Your task to perform on an android device: Show me the alarms in the clock app Image 0: 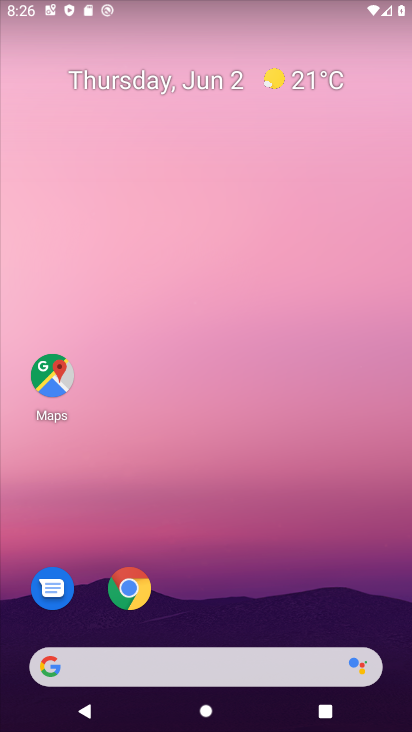
Step 0: drag from (241, 662) to (267, 335)
Your task to perform on an android device: Show me the alarms in the clock app Image 1: 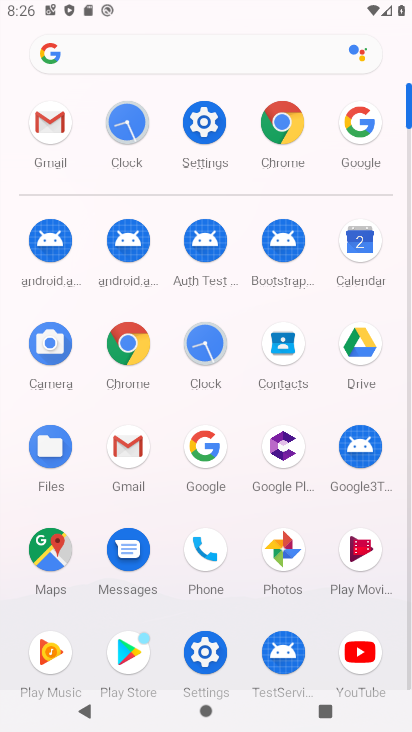
Step 1: click (200, 346)
Your task to perform on an android device: Show me the alarms in the clock app Image 2: 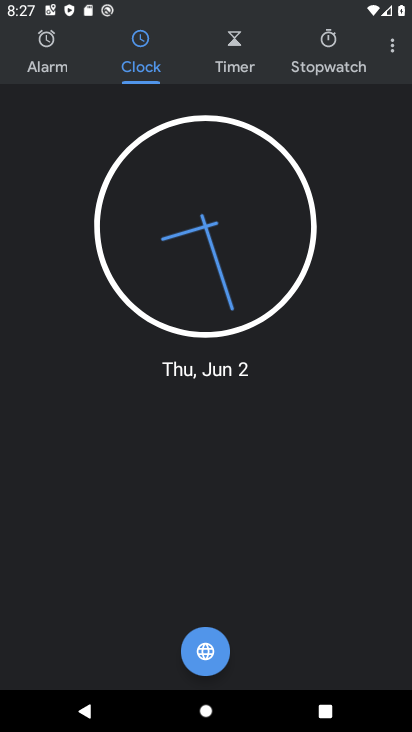
Step 2: click (55, 51)
Your task to perform on an android device: Show me the alarms in the clock app Image 3: 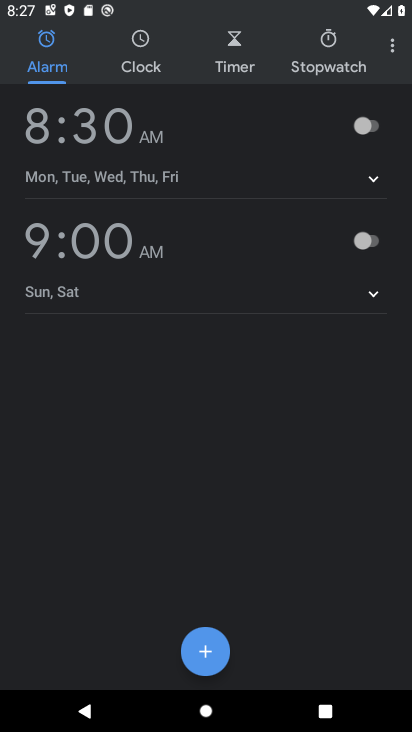
Step 3: task complete